Your task to perform on an android device: check the backup settings in the google photos Image 0: 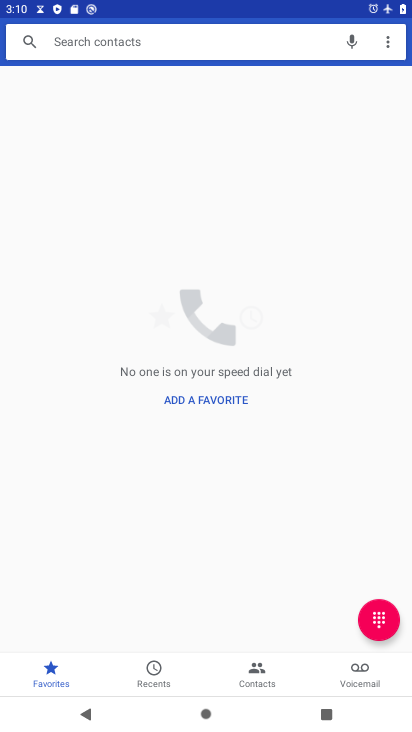
Step 0: press home button
Your task to perform on an android device: check the backup settings in the google photos Image 1: 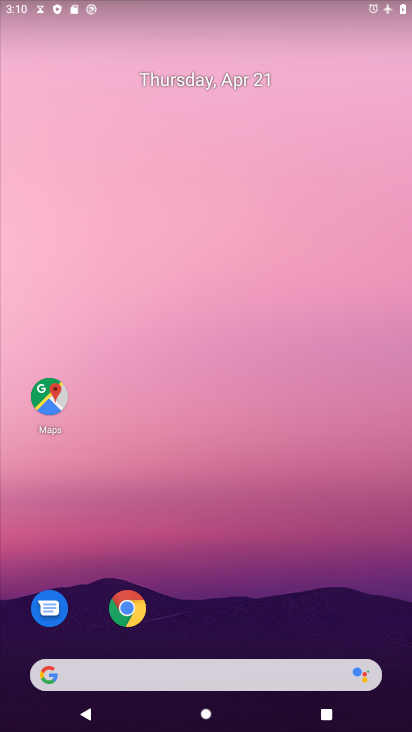
Step 1: drag from (257, 633) to (252, 195)
Your task to perform on an android device: check the backup settings in the google photos Image 2: 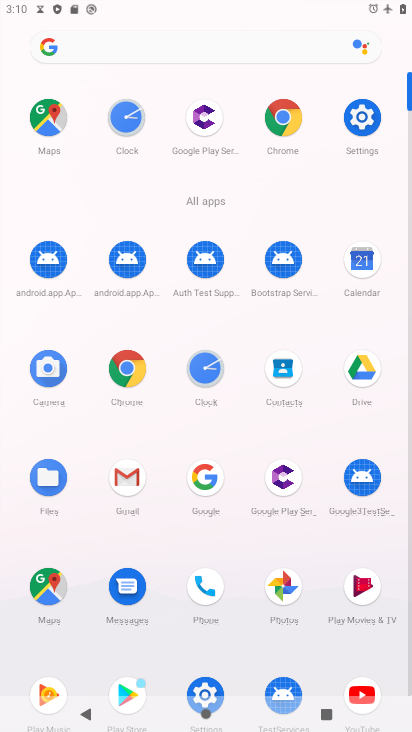
Step 2: click (291, 589)
Your task to perform on an android device: check the backup settings in the google photos Image 3: 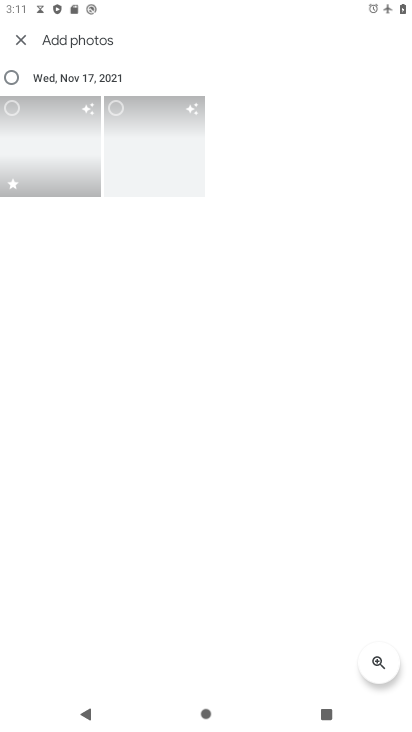
Step 3: press back button
Your task to perform on an android device: check the backup settings in the google photos Image 4: 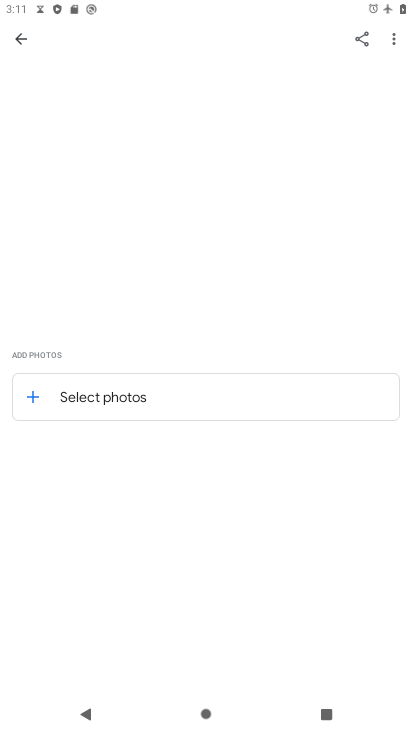
Step 4: press back button
Your task to perform on an android device: check the backup settings in the google photos Image 5: 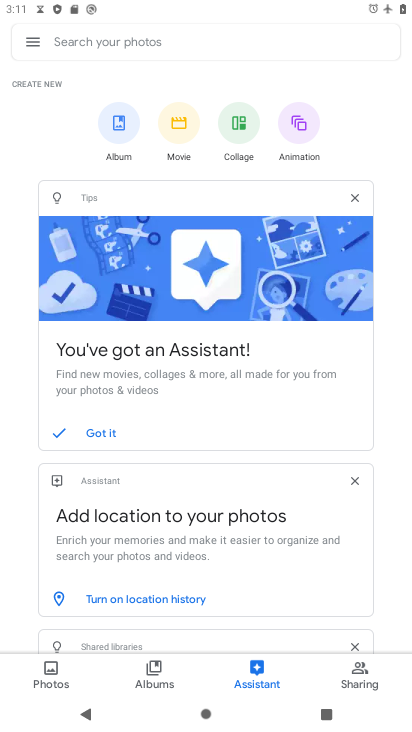
Step 5: click (40, 46)
Your task to perform on an android device: check the backup settings in the google photos Image 6: 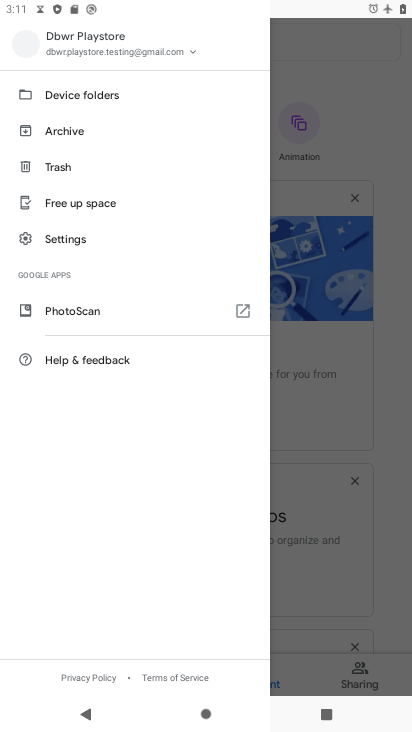
Step 6: click (103, 241)
Your task to perform on an android device: check the backup settings in the google photos Image 7: 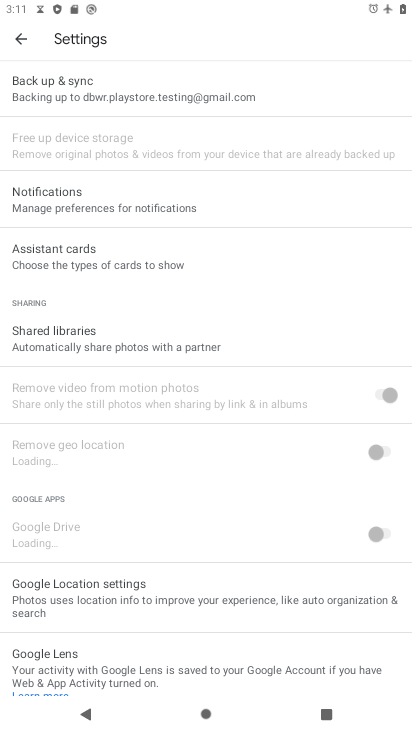
Step 7: click (133, 106)
Your task to perform on an android device: check the backup settings in the google photos Image 8: 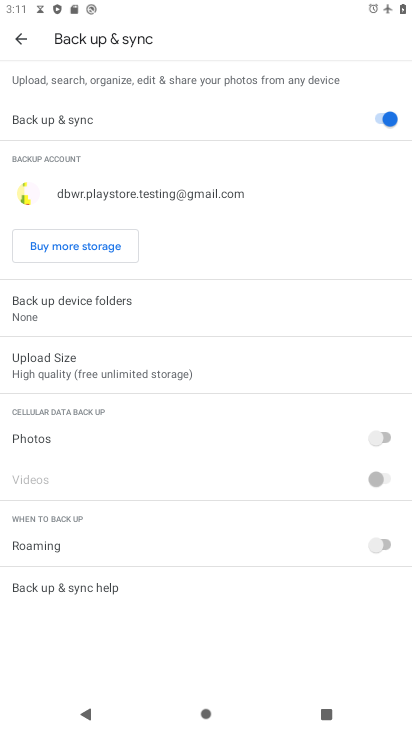
Step 8: task complete